Your task to perform on an android device: What's on my calendar tomorrow? Image 0: 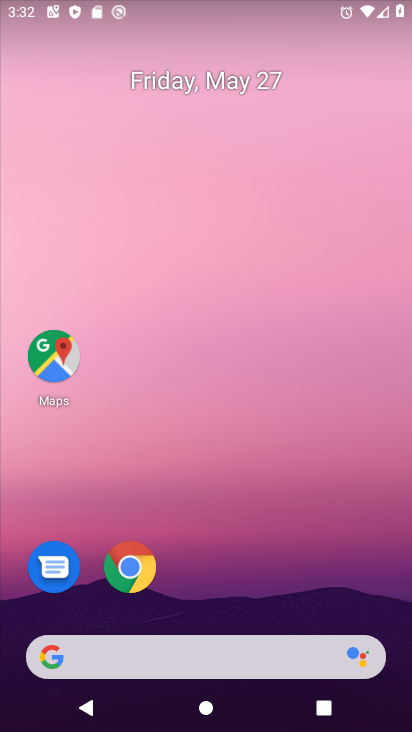
Step 0: drag from (336, 618) to (306, 118)
Your task to perform on an android device: What's on my calendar tomorrow? Image 1: 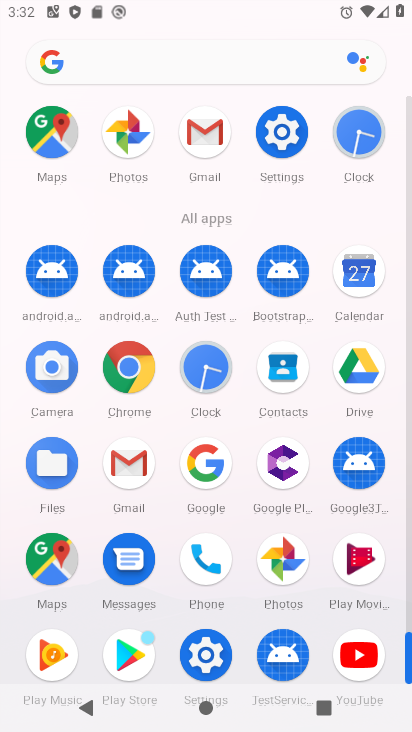
Step 1: click (359, 271)
Your task to perform on an android device: What's on my calendar tomorrow? Image 2: 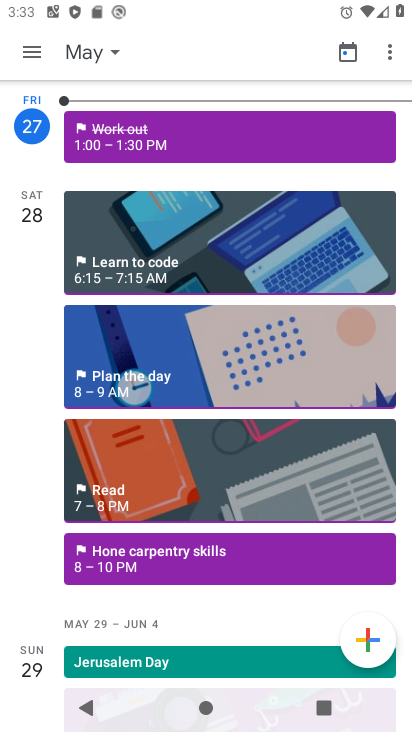
Step 2: click (35, 45)
Your task to perform on an android device: What's on my calendar tomorrow? Image 3: 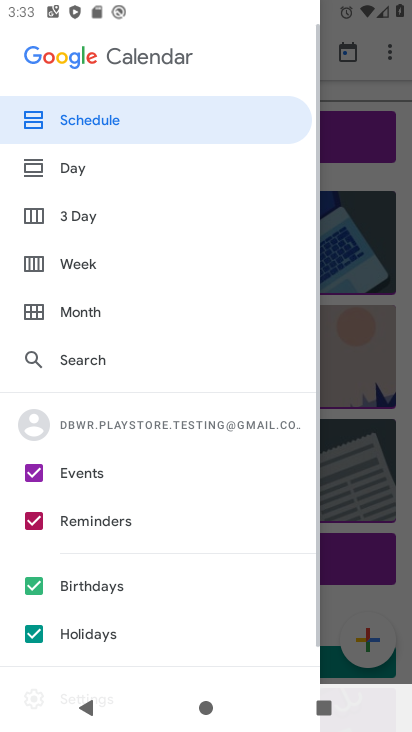
Step 3: click (71, 164)
Your task to perform on an android device: What's on my calendar tomorrow? Image 4: 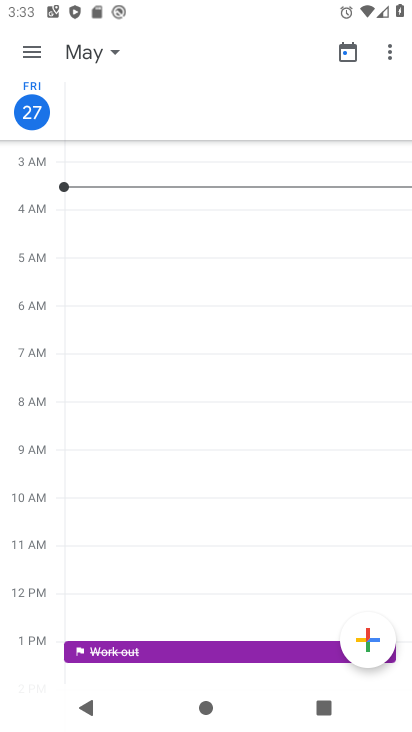
Step 4: click (114, 54)
Your task to perform on an android device: What's on my calendar tomorrow? Image 5: 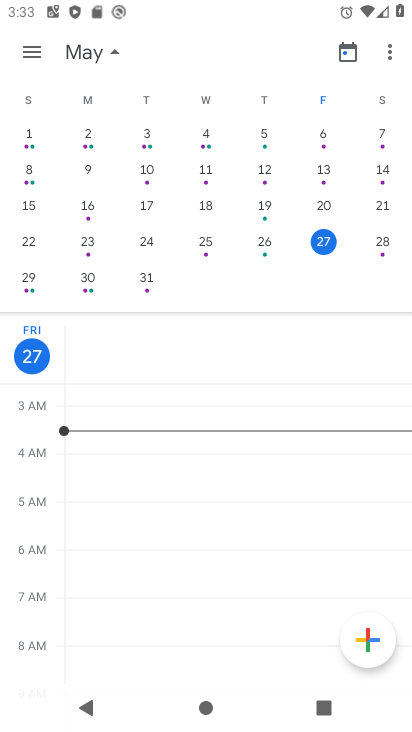
Step 5: click (380, 243)
Your task to perform on an android device: What's on my calendar tomorrow? Image 6: 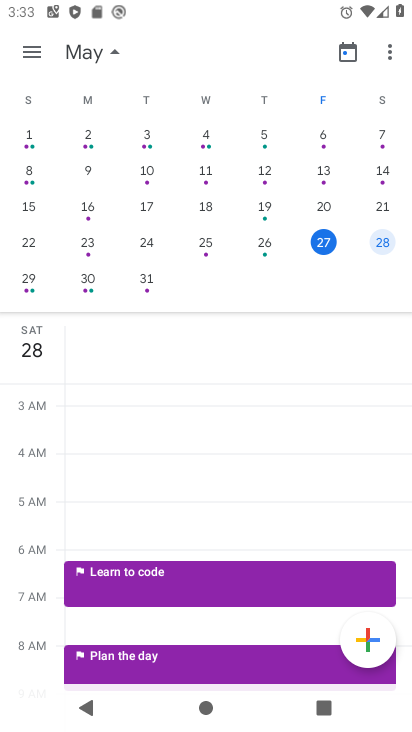
Step 6: task complete